Your task to perform on an android device: Go to Wikipedia Image 0: 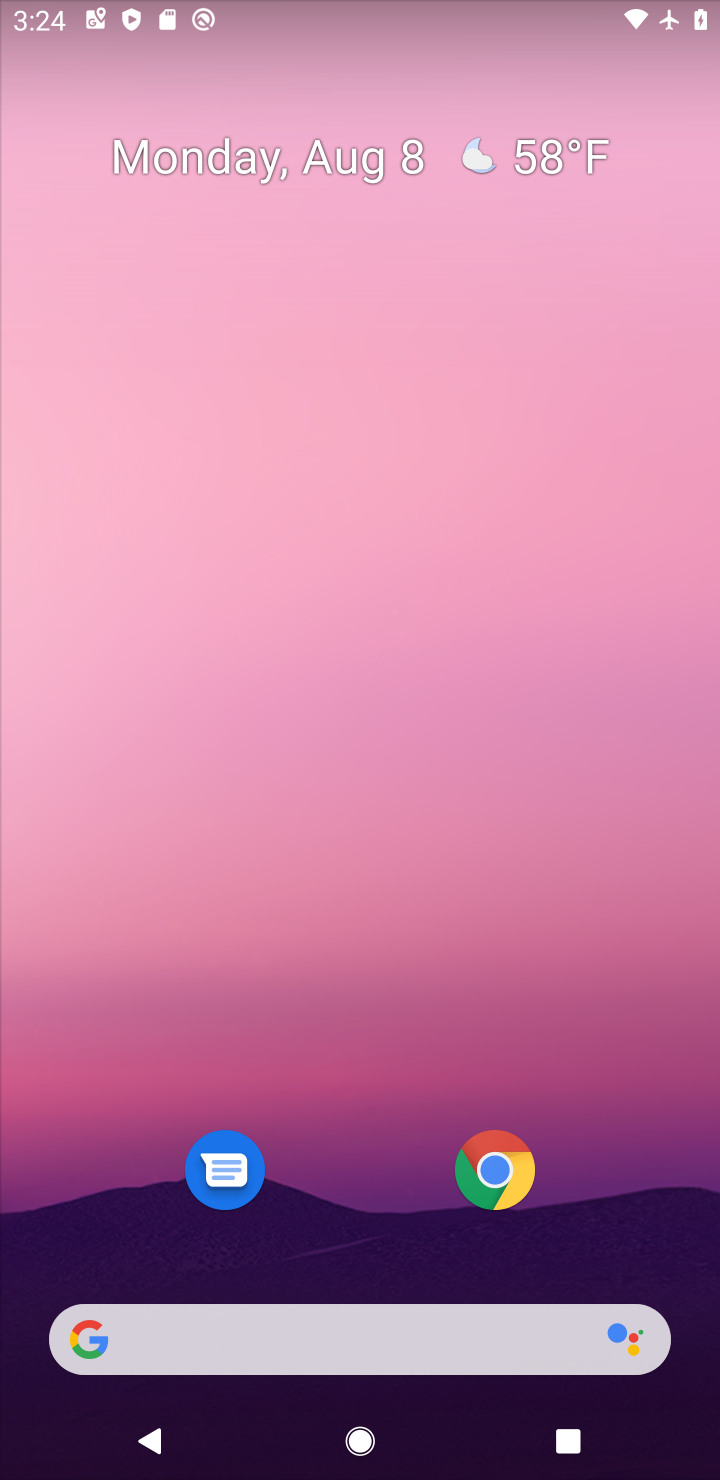
Step 0: click (493, 1176)
Your task to perform on an android device: Go to Wikipedia Image 1: 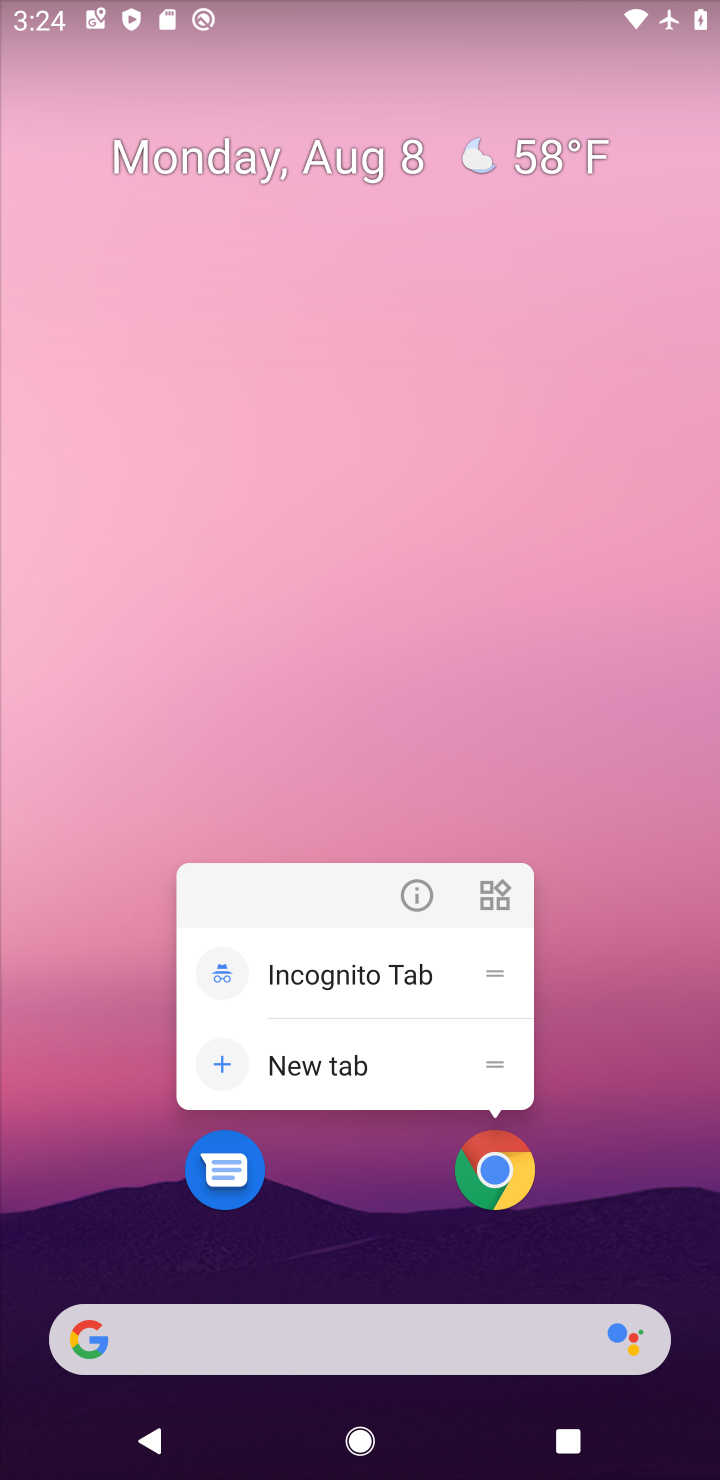
Step 1: click (510, 1195)
Your task to perform on an android device: Go to Wikipedia Image 2: 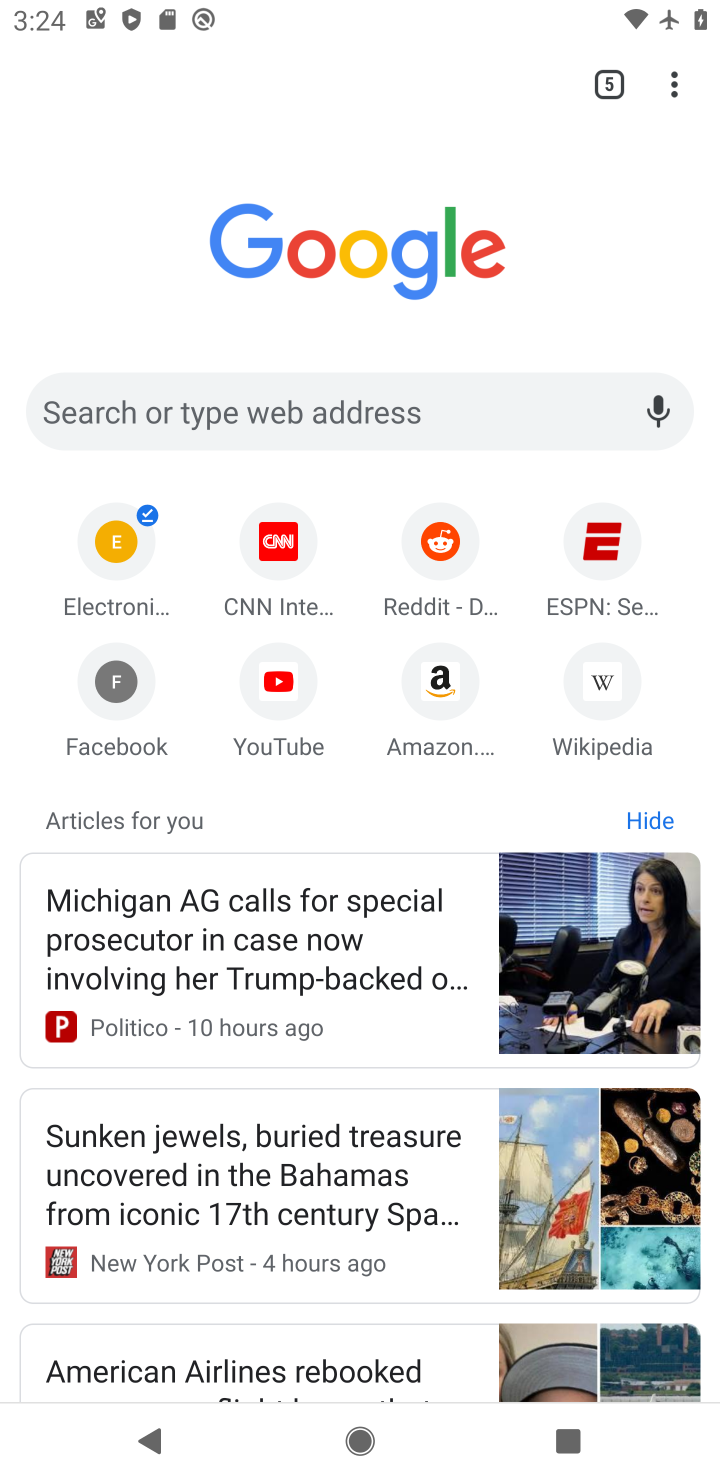
Step 2: click (613, 651)
Your task to perform on an android device: Go to Wikipedia Image 3: 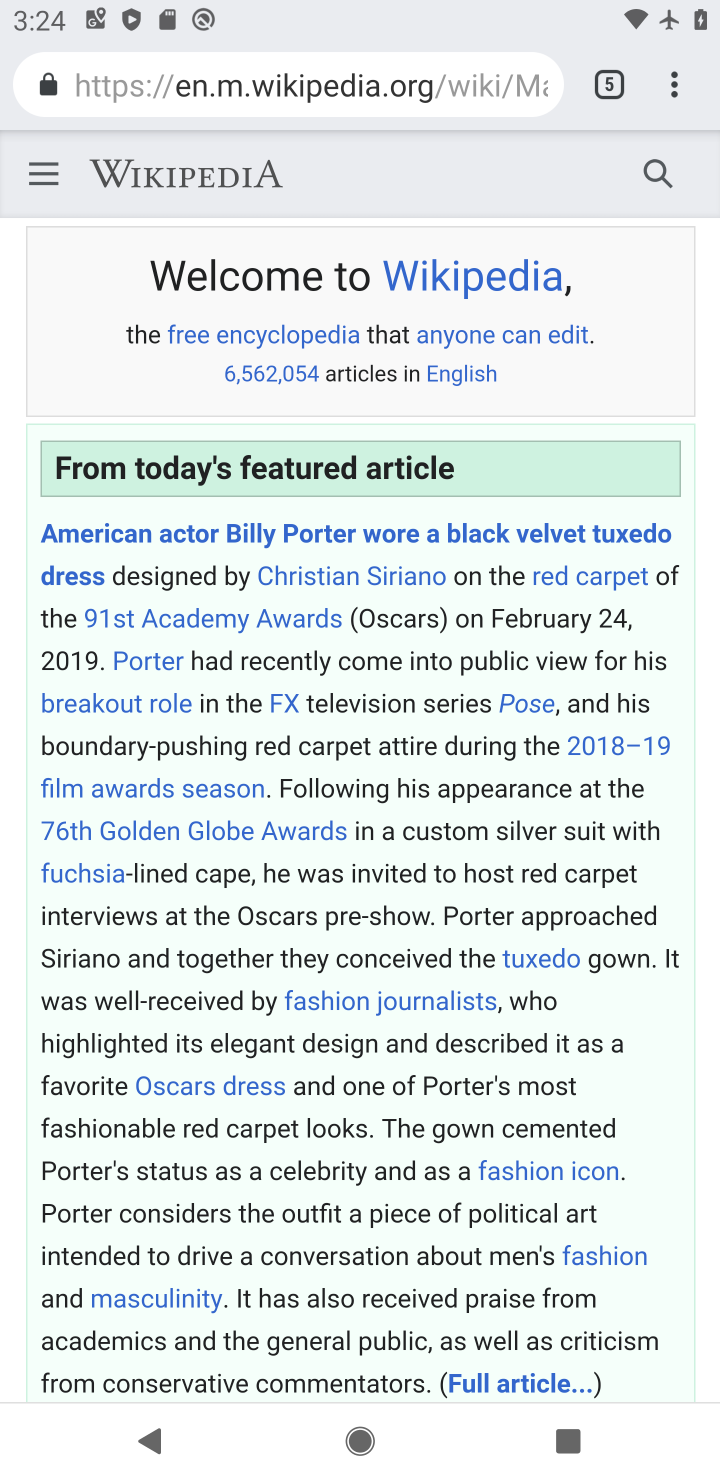
Step 3: task complete